Your task to perform on an android device: Open the Play Movies app and select the watchlist tab. Image 0: 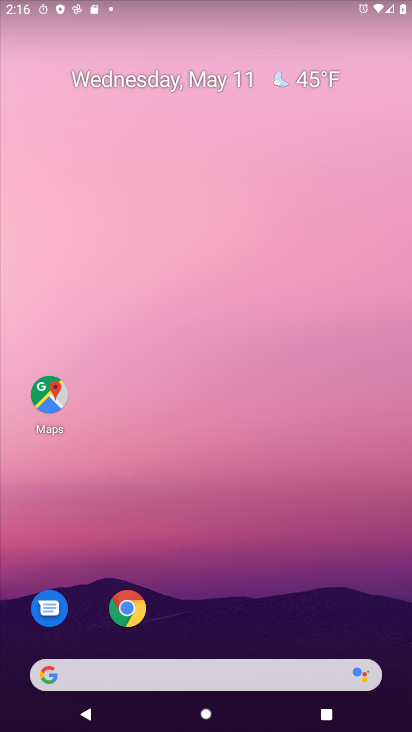
Step 0: drag from (256, 590) to (263, 93)
Your task to perform on an android device: Open the Play Movies app and select the watchlist tab. Image 1: 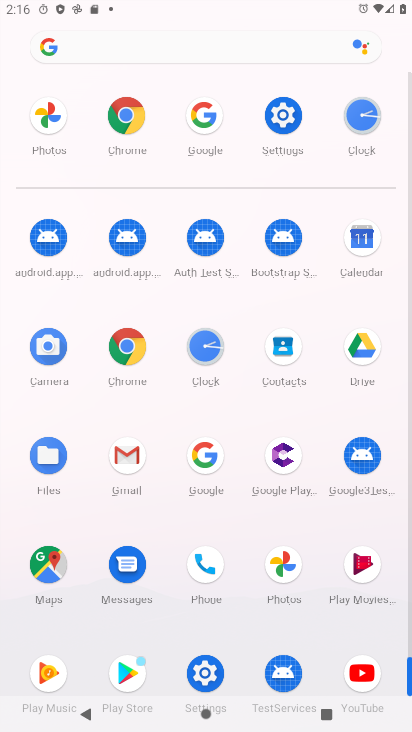
Step 1: click (357, 570)
Your task to perform on an android device: Open the Play Movies app and select the watchlist tab. Image 2: 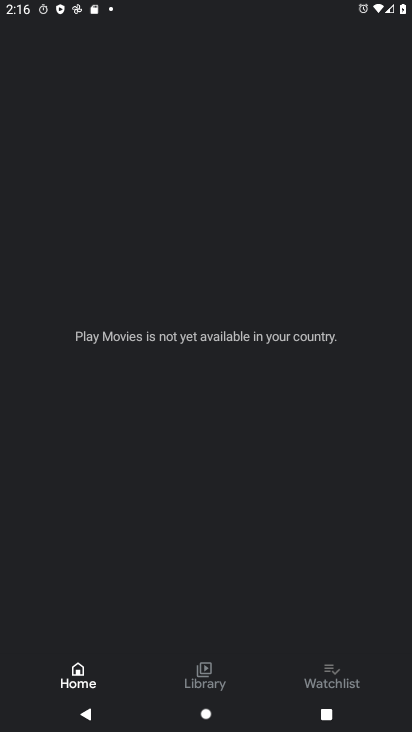
Step 2: click (327, 673)
Your task to perform on an android device: Open the Play Movies app and select the watchlist tab. Image 3: 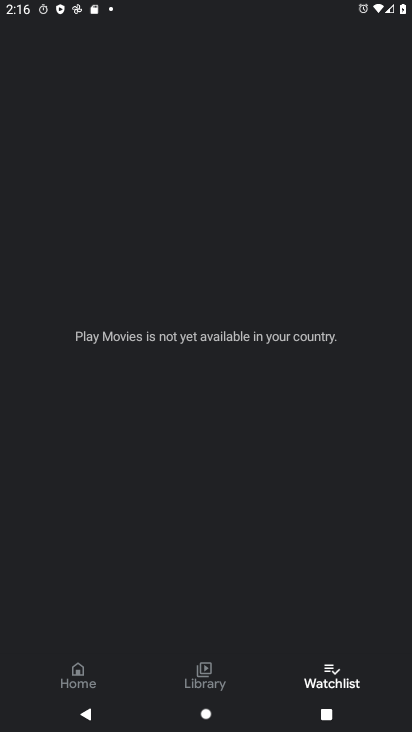
Step 3: task complete